Your task to perform on an android device: delete browsing data in the chrome app Image 0: 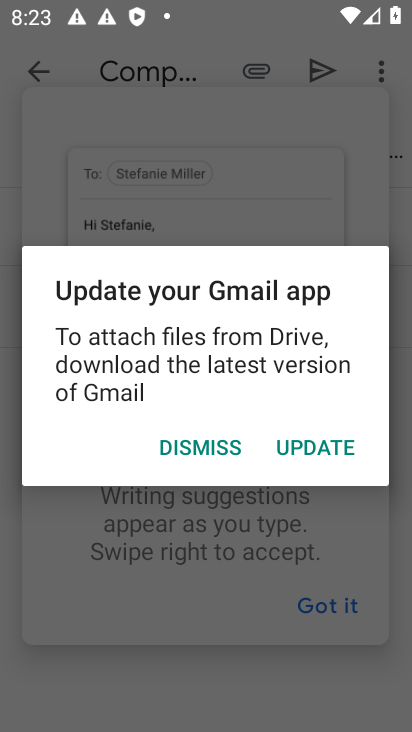
Step 0: press home button
Your task to perform on an android device: delete browsing data in the chrome app Image 1: 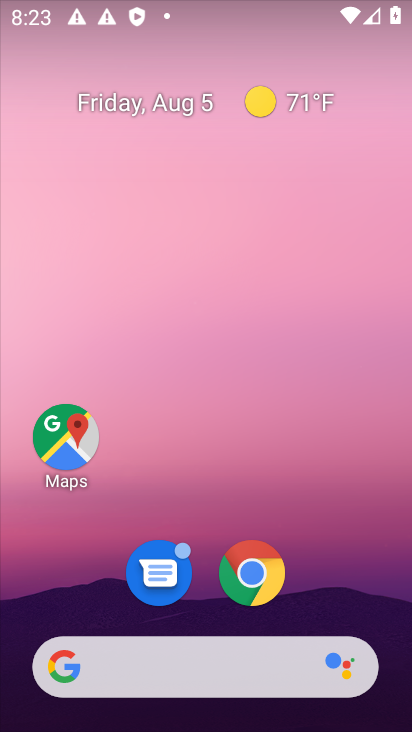
Step 1: click (254, 562)
Your task to perform on an android device: delete browsing data in the chrome app Image 2: 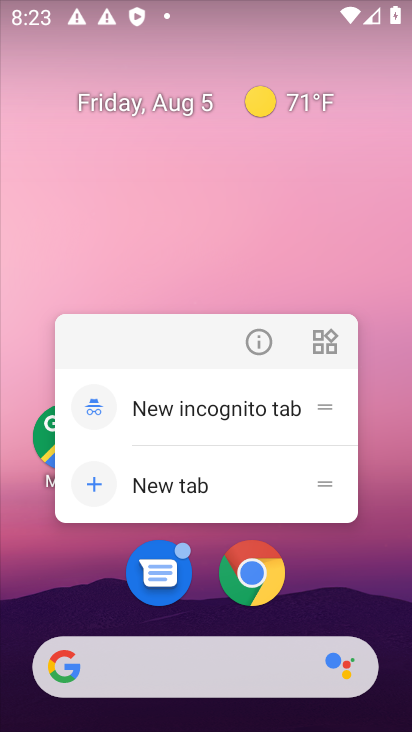
Step 2: click (246, 566)
Your task to perform on an android device: delete browsing data in the chrome app Image 3: 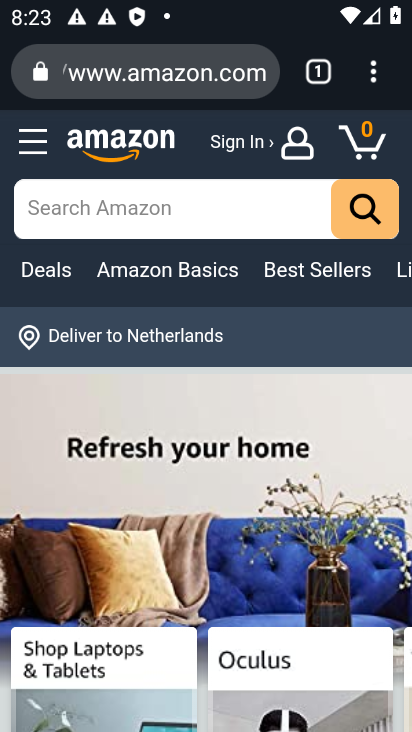
Step 3: click (367, 67)
Your task to perform on an android device: delete browsing data in the chrome app Image 4: 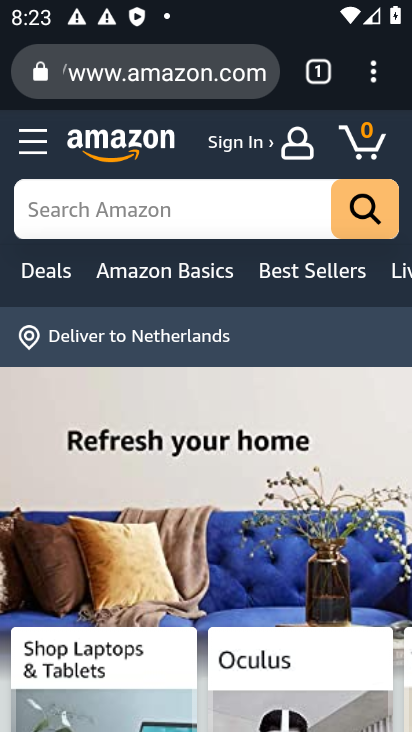
Step 4: click (378, 72)
Your task to perform on an android device: delete browsing data in the chrome app Image 5: 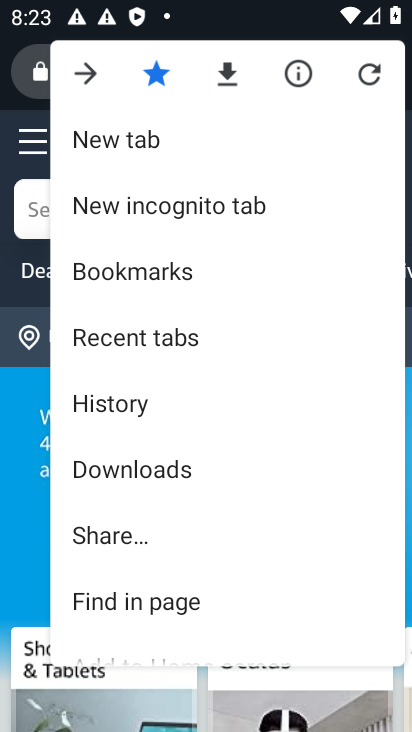
Step 5: click (154, 403)
Your task to perform on an android device: delete browsing data in the chrome app Image 6: 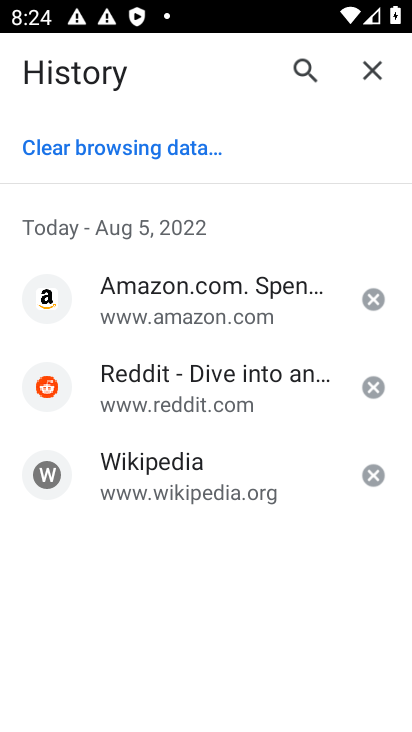
Step 6: click (129, 146)
Your task to perform on an android device: delete browsing data in the chrome app Image 7: 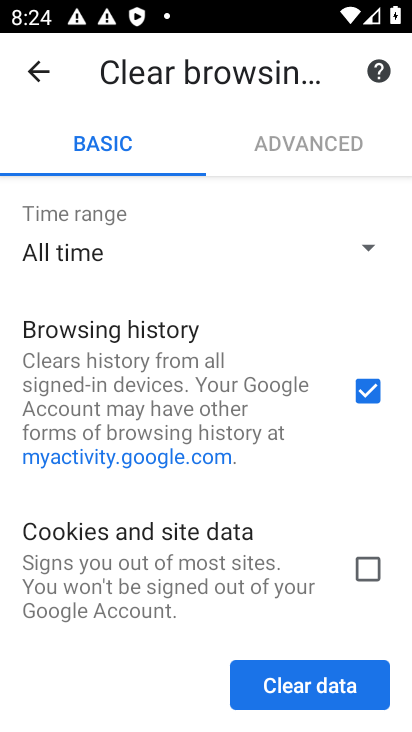
Step 7: drag from (319, 533) to (303, 228)
Your task to perform on an android device: delete browsing data in the chrome app Image 8: 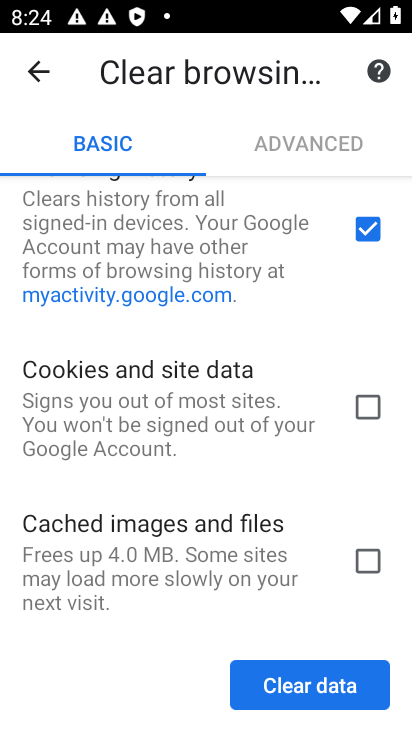
Step 8: click (308, 681)
Your task to perform on an android device: delete browsing data in the chrome app Image 9: 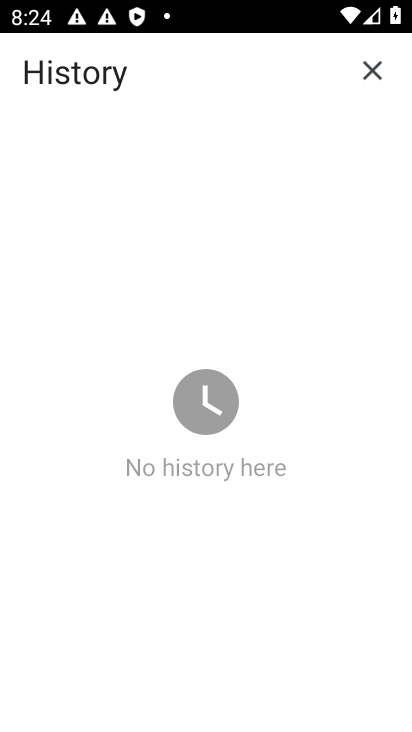
Step 9: task complete